Your task to perform on an android device: What's the weather today? Image 0: 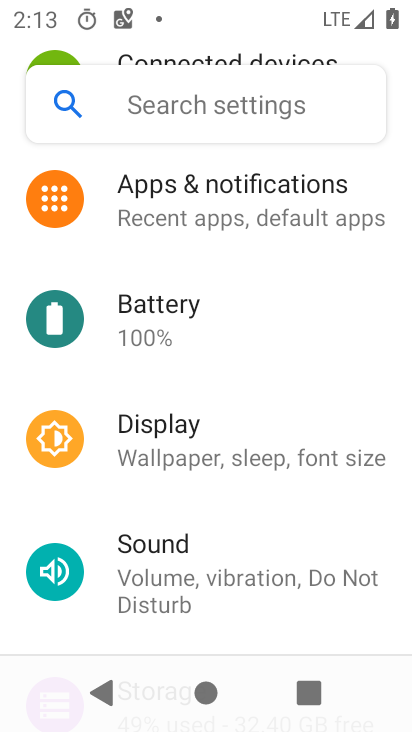
Step 0: drag from (188, 534) to (308, 168)
Your task to perform on an android device: What's the weather today? Image 1: 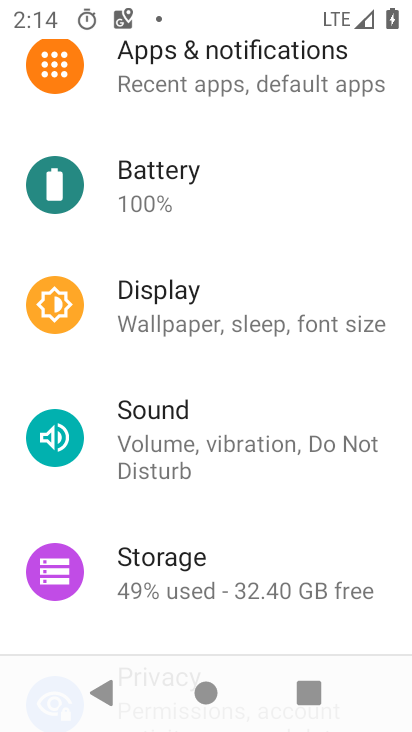
Step 1: drag from (222, 560) to (194, 21)
Your task to perform on an android device: What's the weather today? Image 2: 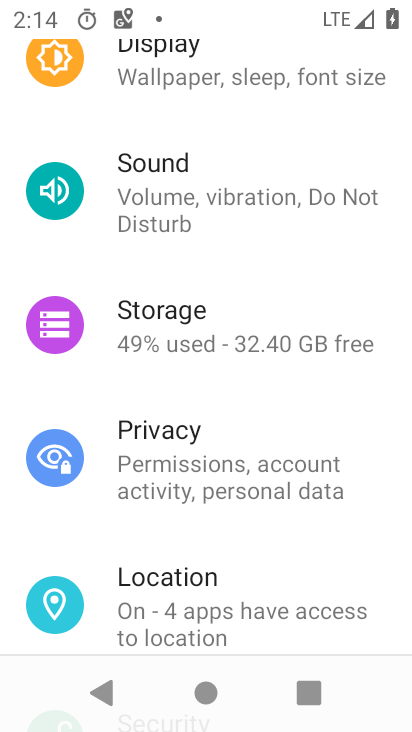
Step 2: press home button
Your task to perform on an android device: What's the weather today? Image 3: 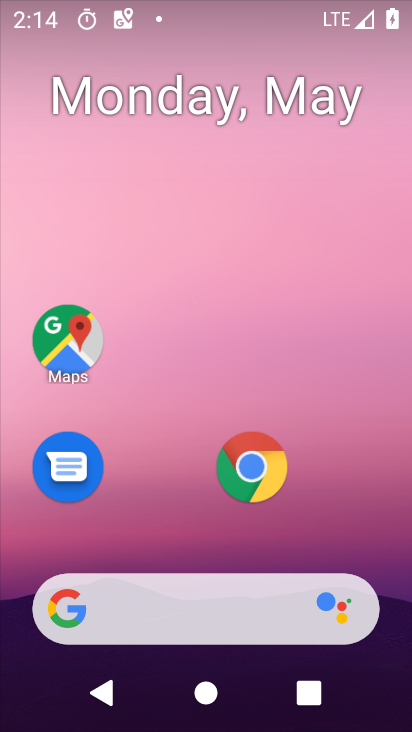
Step 3: drag from (188, 558) to (272, 107)
Your task to perform on an android device: What's the weather today? Image 4: 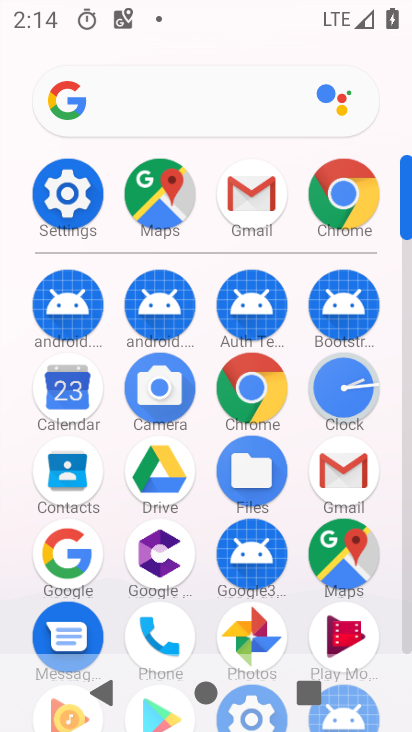
Step 4: click (216, 104)
Your task to perform on an android device: What's the weather today? Image 5: 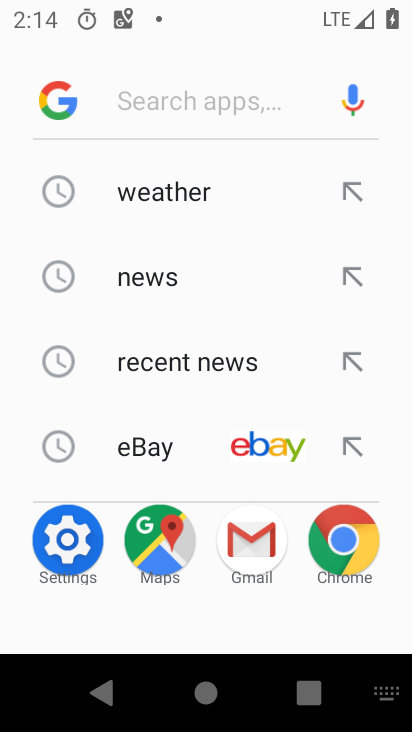
Step 5: click (170, 98)
Your task to perform on an android device: What's the weather today? Image 6: 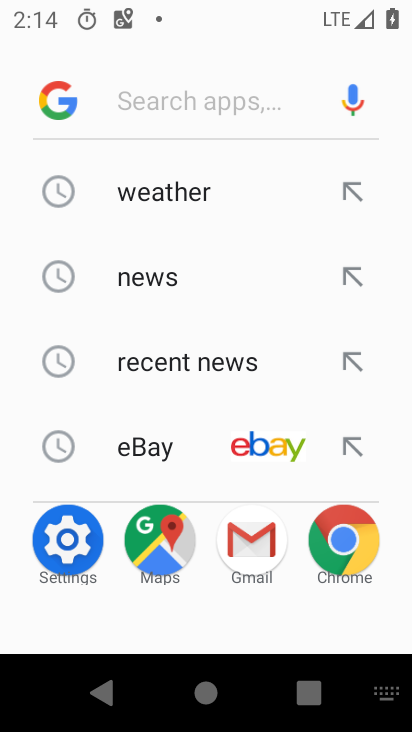
Step 6: type "weather today?"
Your task to perform on an android device: What's the weather today? Image 7: 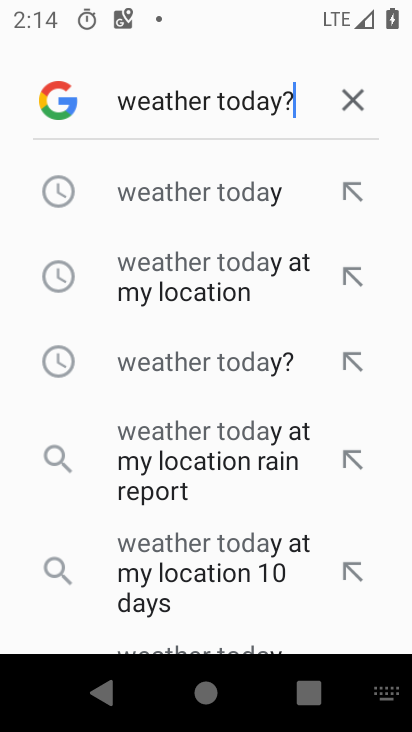
Step 7: type ""
Your task to perform on an android device: What's the weather today? Image 8: 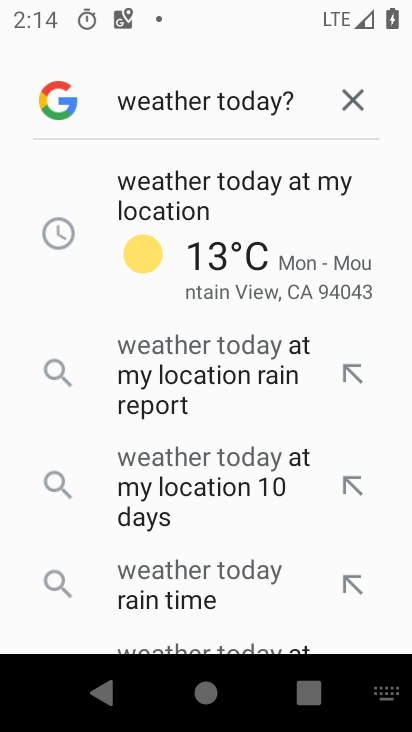
Step 8: click (208, 186)
Your task to perform on an android device: What's the weather today? Image 9: 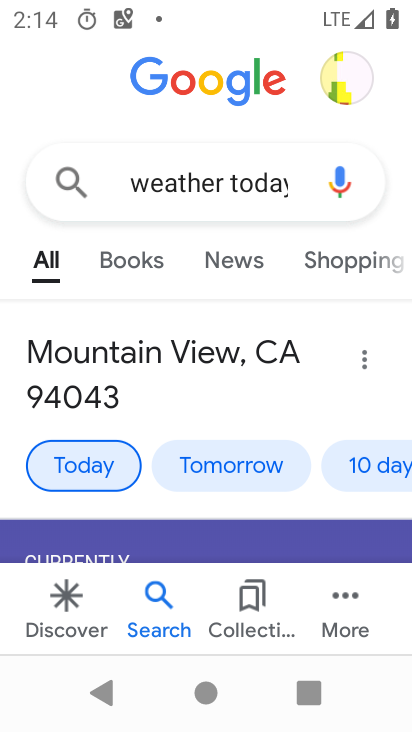
Step 9: task complete